Your task to perform on an android device: Open Google Maps and go to "Timeline" Image 0: 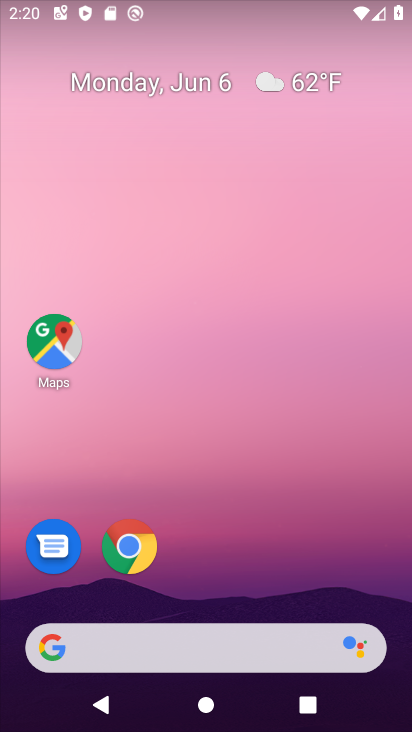
Step 0: drag from (279, 553) to (273, 154)
Your task to perform on an android device: Open Google Maps and go to "Timeline" Image 1: 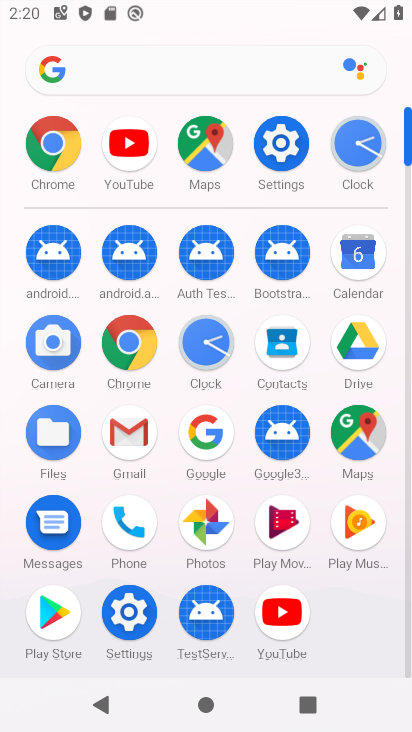
Step 1: click (124, 350)
Your task to perform on an android device: Open Google Maps and go to "Timeline" Image 2: 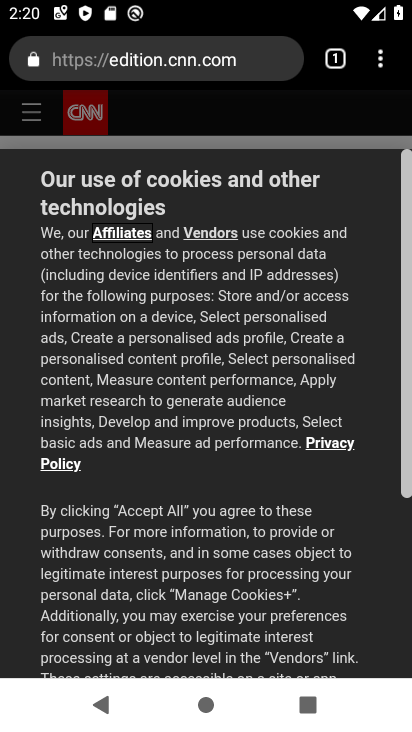
Step 2: press home button
Your task to perform on an android device: Open Google Maps and go to "Timeline" Image 3: 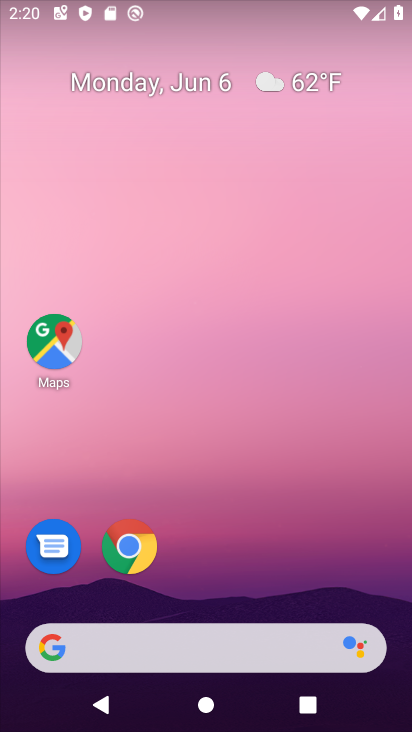
Step 3: click (60, 335)
Your task to perform on an android device: Open Google Maps and go to "Timeline" Image 4: 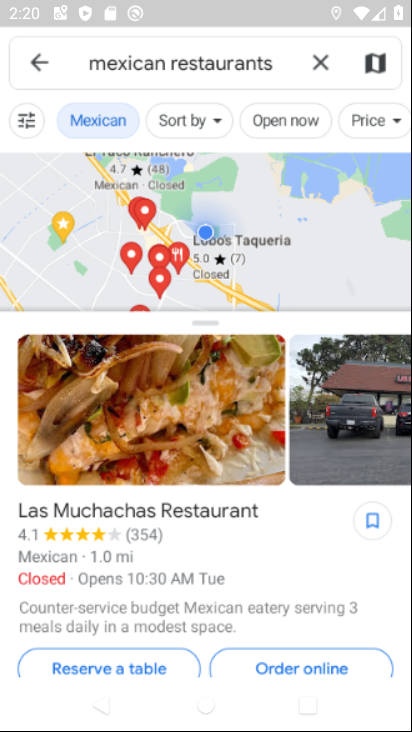
Step 4: click (22, 72)
Your task to perform on an android device: Open Google Maps and go to "Timeline" Image 5: 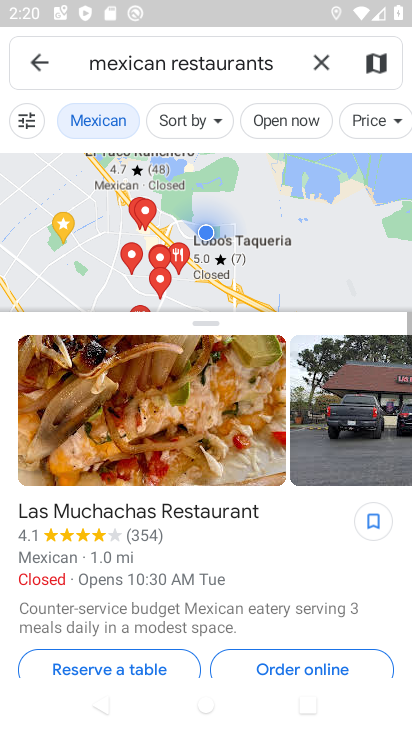
Step 5: click (37, 65)
Your task to perform on an android device: Open Google Maps and go to "Timeline" Image 6: 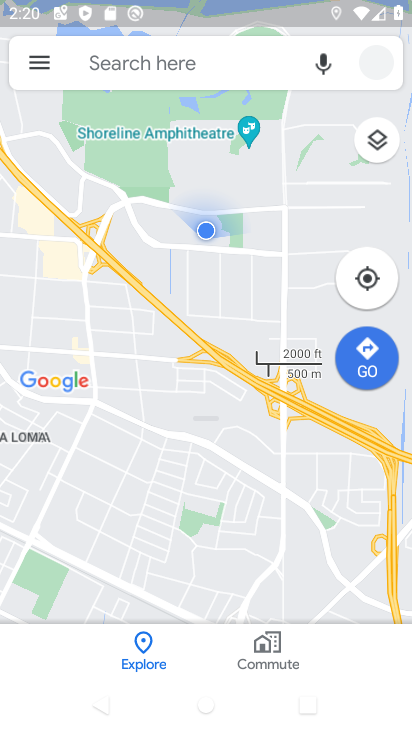
Step 6: click (37, 65)
Your task to perform on an android device: Open Google Maps and go to "Timeline" Image 7: 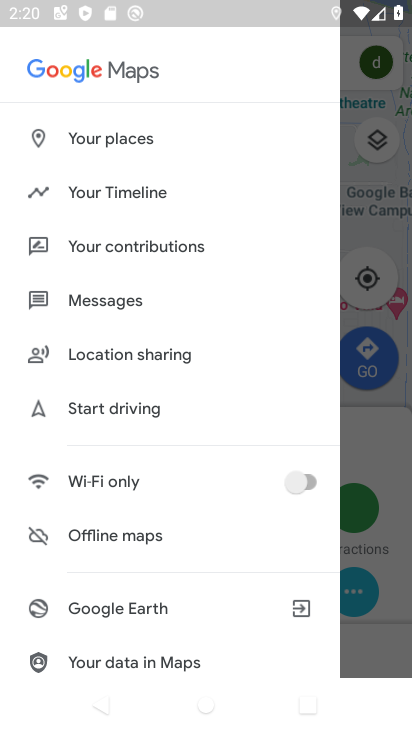
Step 7: click (127, 200)
Your task to perform on an android device: Open Google Maps and go to "Timeline" Image 8: 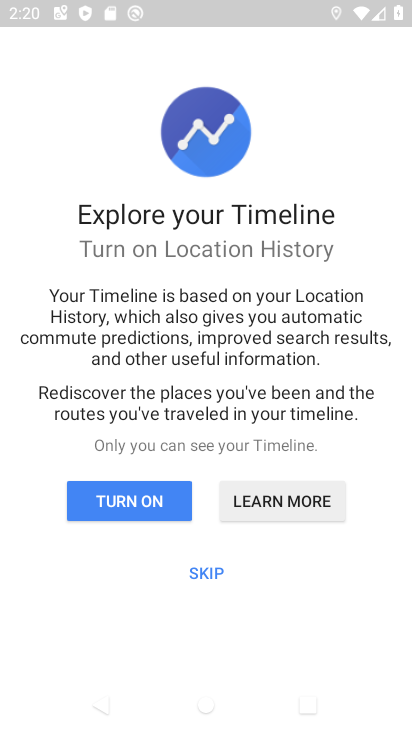
Step 8: click (183, 496)
Your task to perform on an android device: Open Google Maps and go to "Timeline" Image 9: 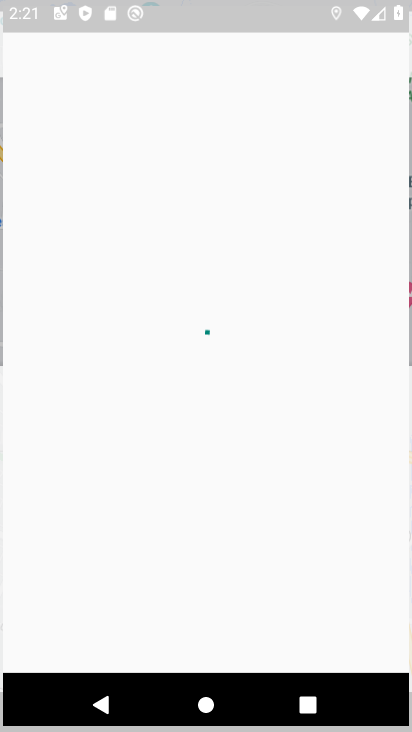
Step 9: task complete